Your task to perform on an android device: see creations saved in the google photos Image 0: 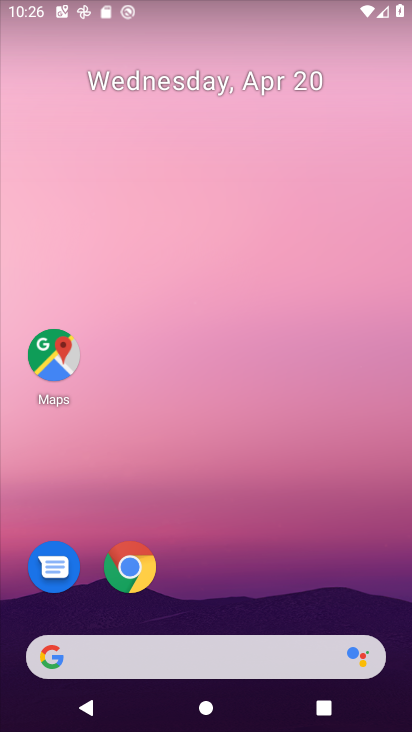
Step 0: drag from (338, 565) to (339, 207)
Your task to perform on an android device: see creations saved in the google photos Image 1: 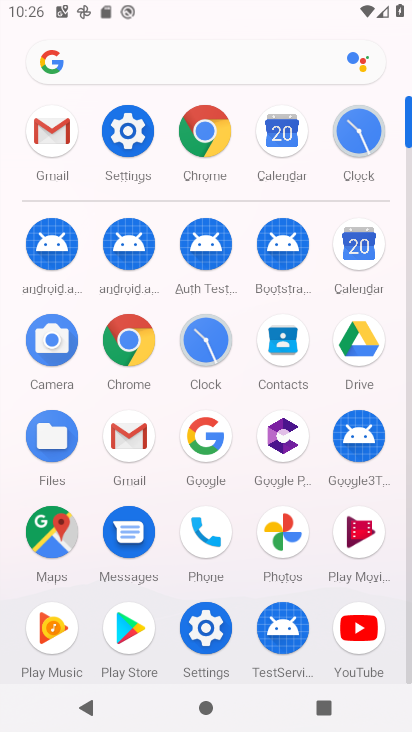
Step 1: click (283, 522)
Your task to perform on an android device: see creations saved in the google photos Image 2: 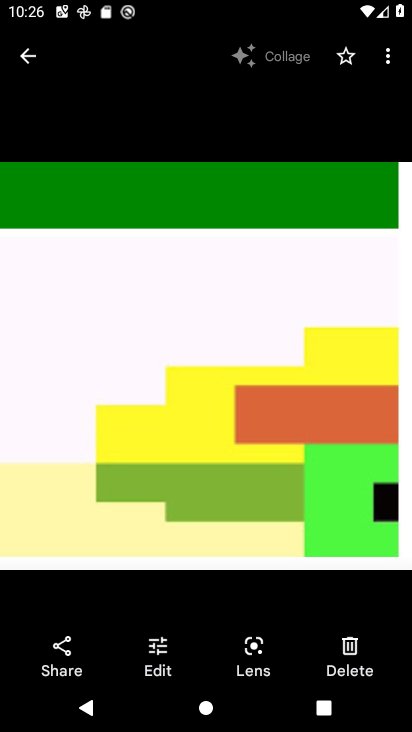
Step 2: press back button
Your task to perform on an android device: see creations saved in the google photos Image 3: 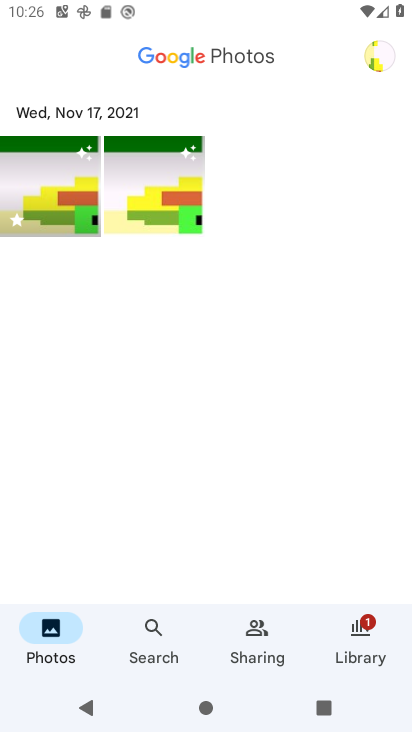
Step 3: click (161, 641)
Your task to perform on an android device: see creations saved in the google photos Image 4: 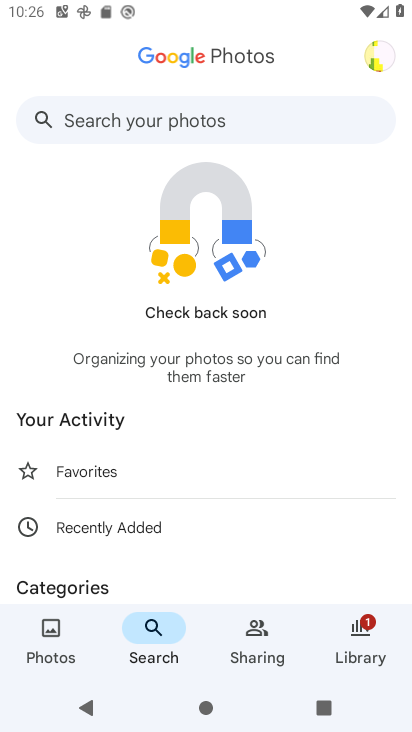
Step 4: drag from (297, 400) to (297, 277)
Your task to perform on an android device: see creations saved in the google photos Image 5: 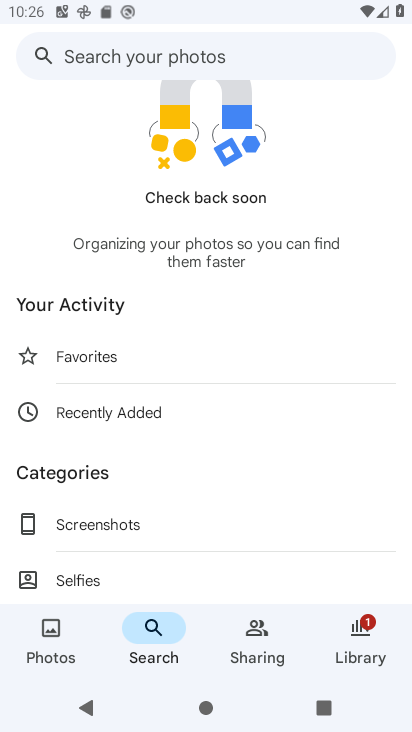
Step 5: drag from (291, 519) to (291, 310)
Your task to perform on an android device: see creations saved in the google photos Image 6: 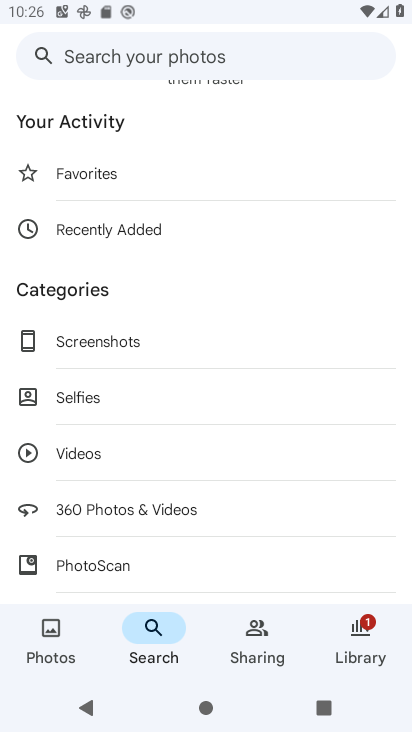
Step 6: drag from (287, 528) to (288, 360)
Your task to perform on an android device: see creations saved in the google photos Image 7: 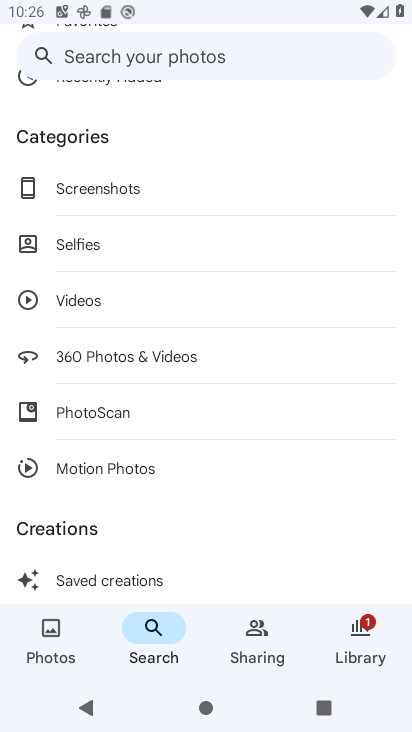
Step 7: drag from (283, 513) to (281, 326)
Your task to perform on an android device: see creations saved in the google photos Image 8: 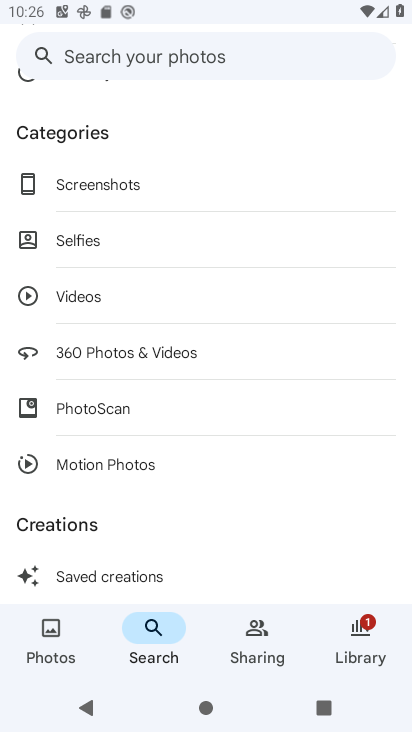
Step 8: click (110, 572)
Your task to perform on an android device: see creations saved in the google photos Image 9: 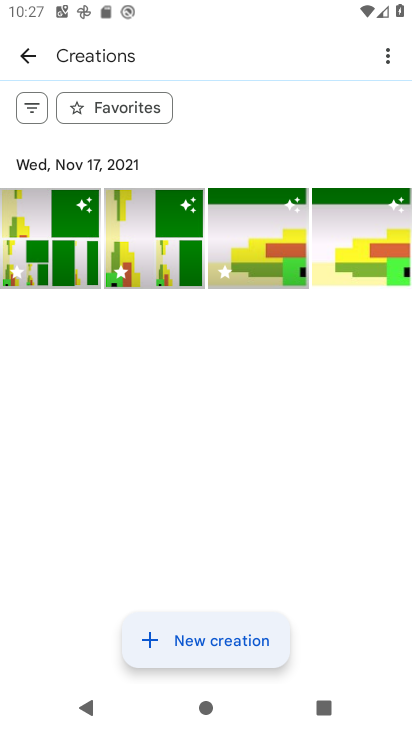
Step 9: task complete